Your task to perform on an android device: Open eBay Image 0: 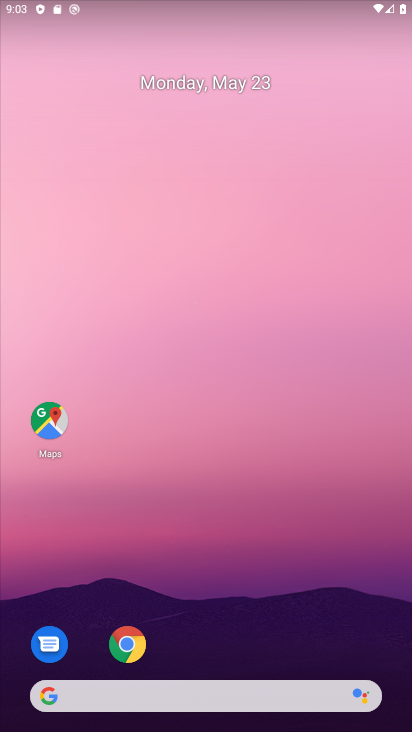
Step 0: press home button
Your task to perform on an android device: Open eBay Image 1: 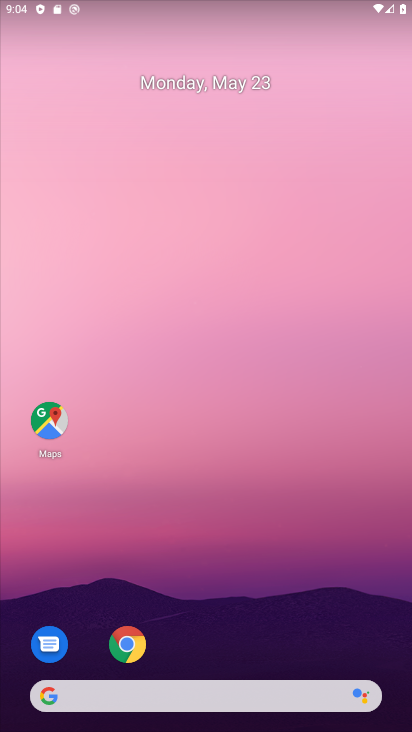
Step 1: drag from (233, 706) to (138, 239)
Your task to perform on an android device: Open eBay Image 2: 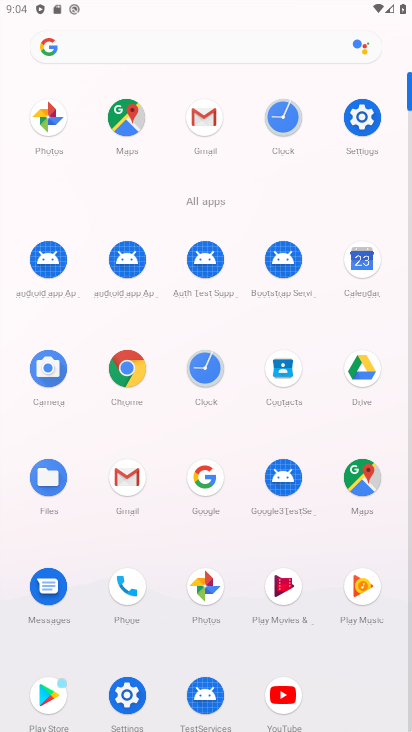
Step 2: click (111, 375)
Your task to perform on an android device: Open eBay Image 3: 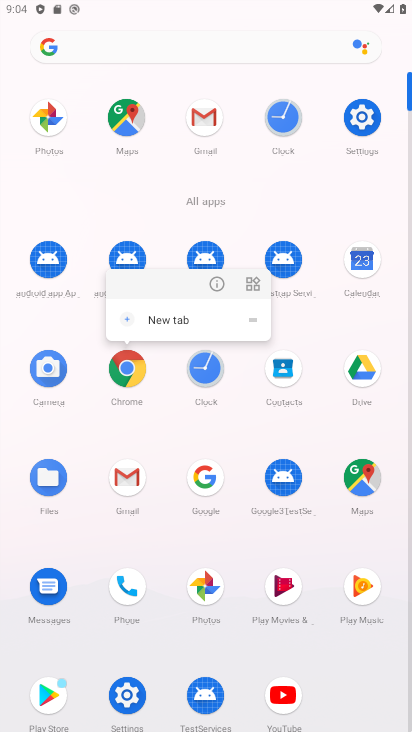
Step 3: click (128, 371)
Your task to perform on an android device: Open eBay Image 4: 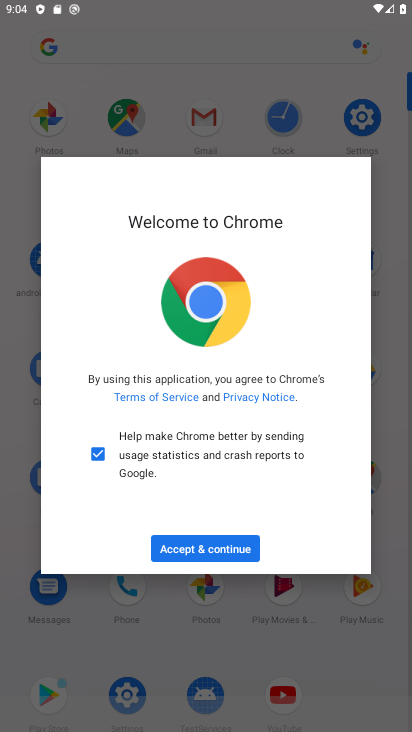
Step 4: click (245, 544)
Your task to perform on an android device: Open eBay Image 5: 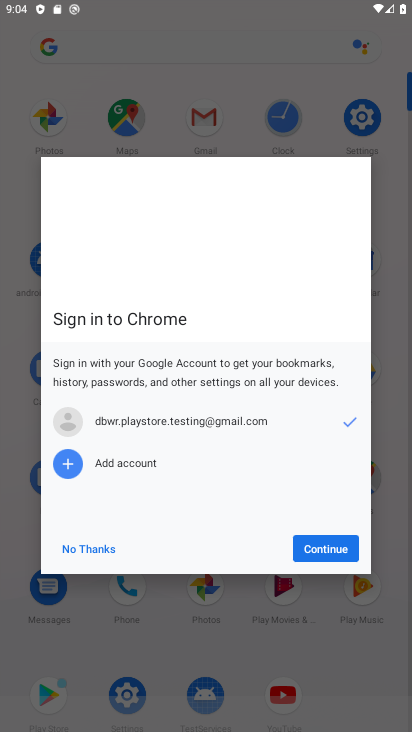
Step 5: click (326, 550)
Your task to perform on an android device: Open eBay Image 6: 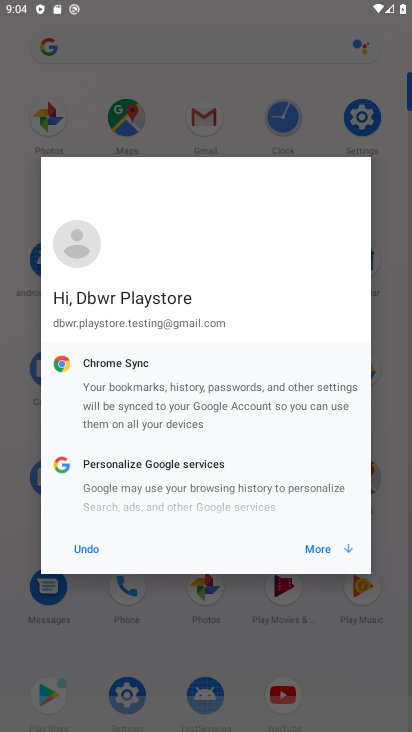
Step 6: click (334, 537)
Your task to perform on an android device: Open eBay Image 7: 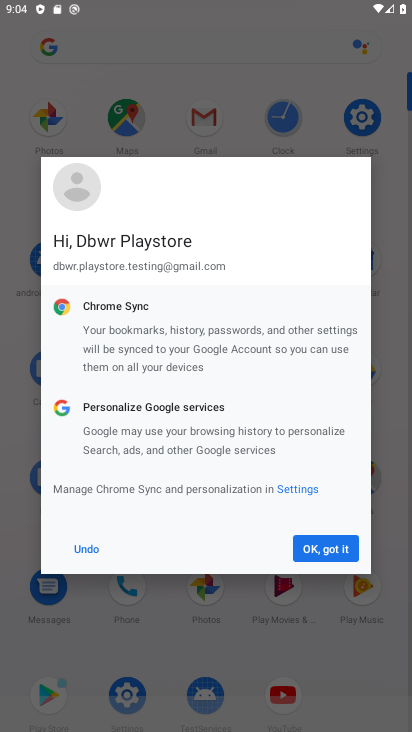
Step 7: click (336, 549)
Your task to perform on an android device: Open eBay Image 8: 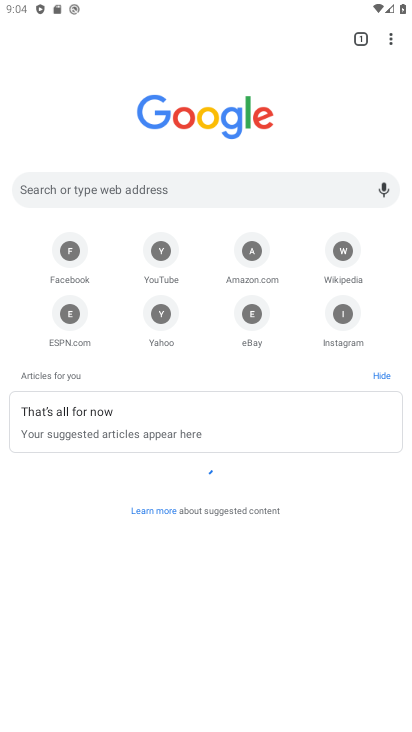
Step 8: click (165, 179)
Your task to perform on an android device: Open eBay Image 9: 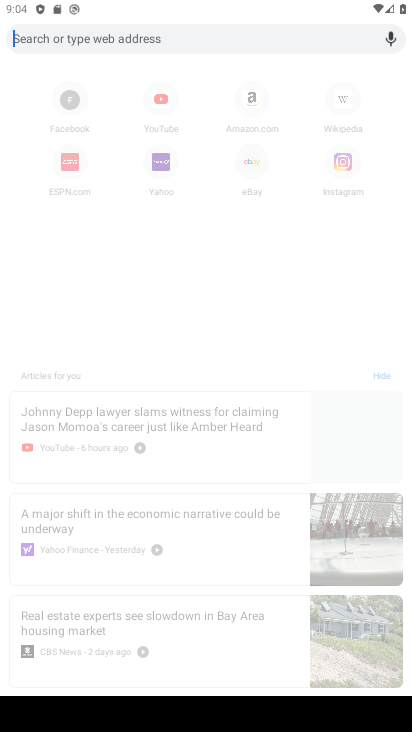
Step 9: click (345, 628)
Your task to perform on an android device: Open eBay Image 10: 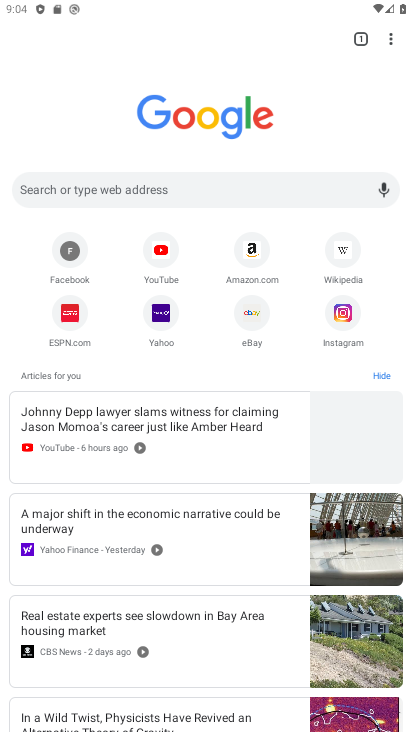
Step 10: drag from (401, 711) to (383, 628)
Your task to perform on an android device: Open eBay Image 11: 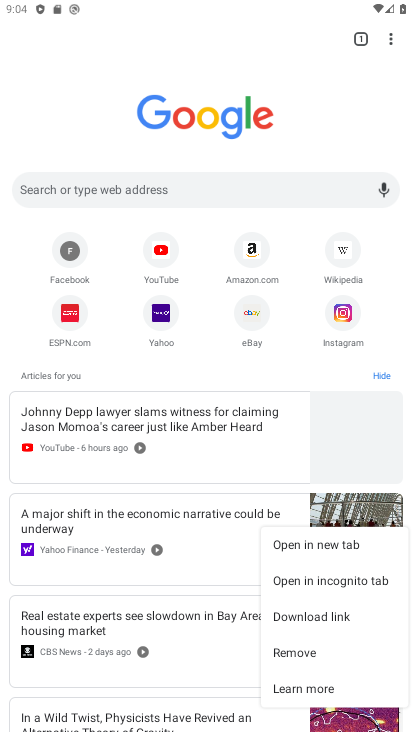
Step 11: click (97, 190)
Your task to perform on an android device: Open eBay Image 12: 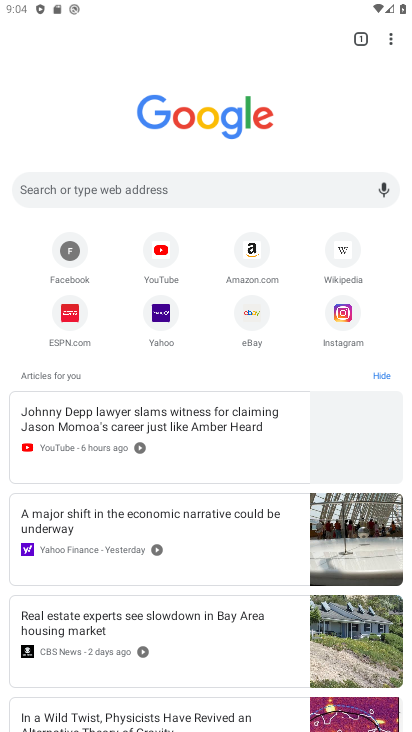
Step 12: click (250, 320)
Your task to perform on an android device: Open eBay Image 13: 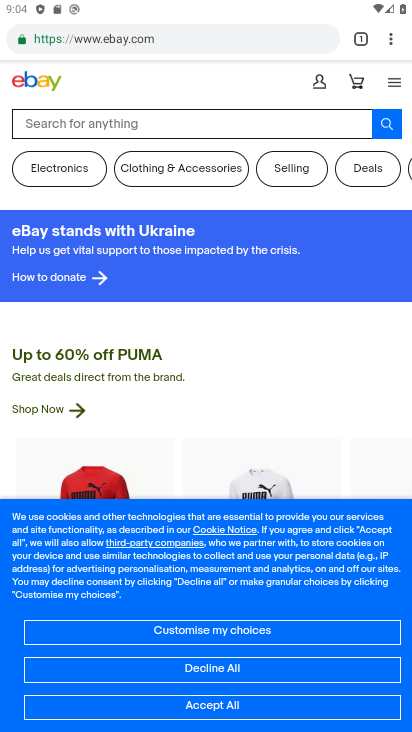
Step 13: task complete